Your task to perform on an android device: open chrome and create a bookmark for the current page Image 0: 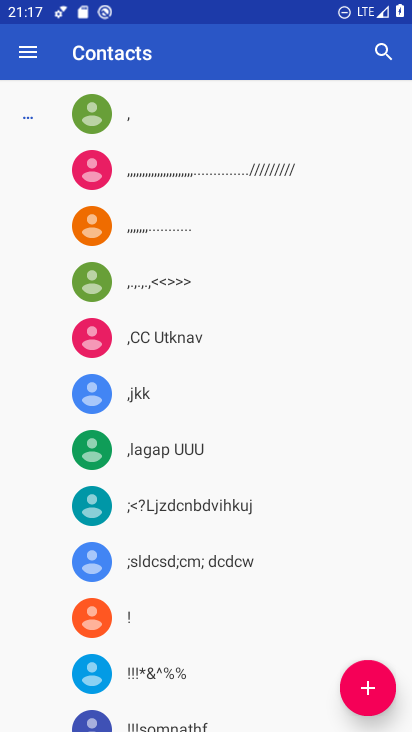
Step 0: drag from (234, 629) to (300, 278)
Your task to perform on an android device: open chrome and create a bookmark for the current page Image 1: 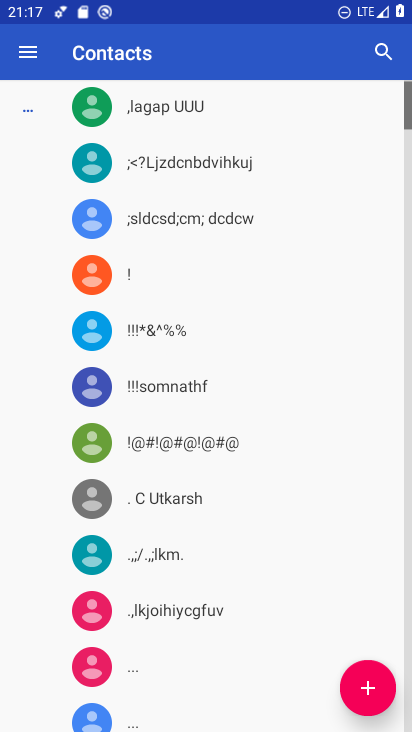
Step 1: press home button
Your task to perform on an android device: open chrome and create a bookmark for the current page Image 2: 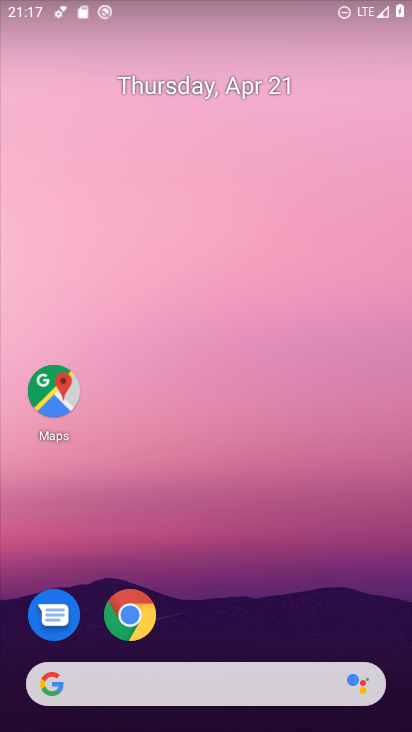
Step 2: drag from (197, 622) to (247, 62)
Your task to perform on an android device: open chrome and create a bookmark for the current page Image 3: 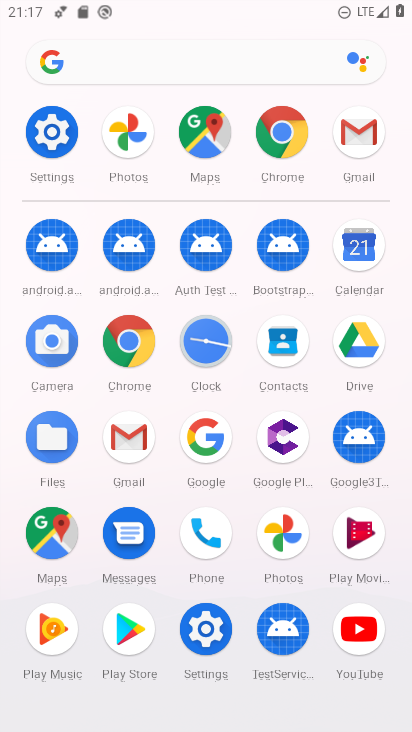
Step 3: click (124, 354)
Your task to perform on an android device: open chrome and create a bookmark for the current page Image 4: 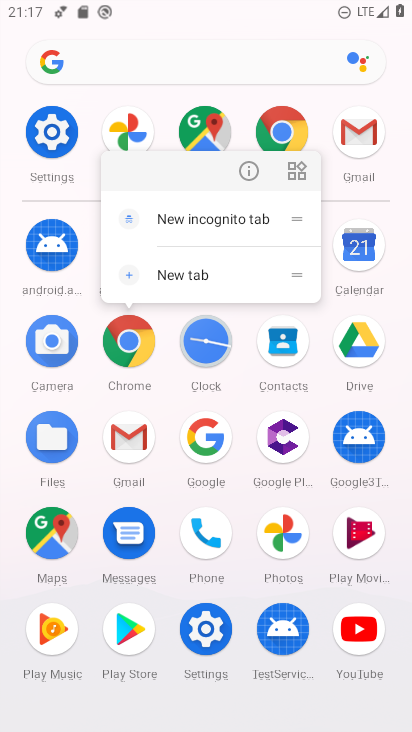
Step 4: click (257, 171)
Your task to perform on an android device: open chrome and create a bookmark for the current page Image 5: 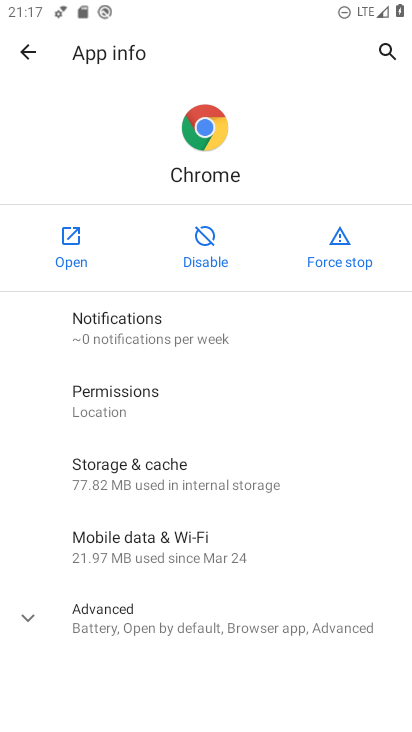
Step 5: click (68, 246)
Your task to perform on an android device: open chrome and create a bookmark for the current page Image 6: 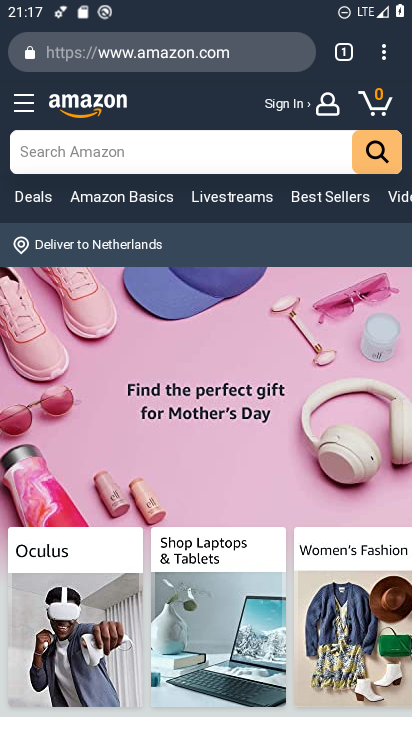
Step 6: drag from (391, 57) to (260, 270)
Your task to perform on an android device: open chrome and create a bookmark for the current page Image 7: 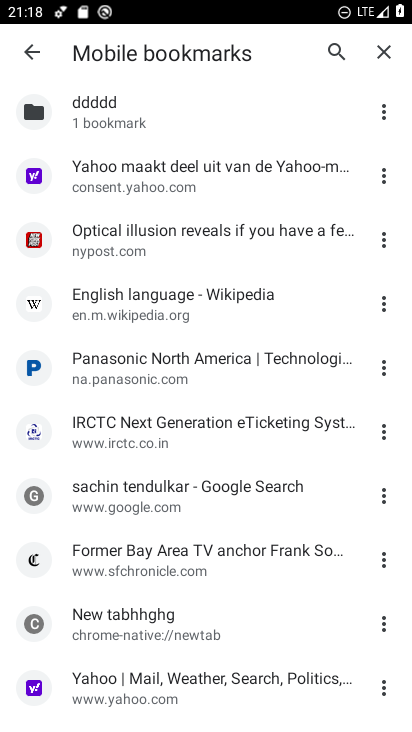
Step 7: drag from (216, 562) to (229, 191)
Your task to perform on an android device: open chrome and create a bookmark for the current page Image 8: 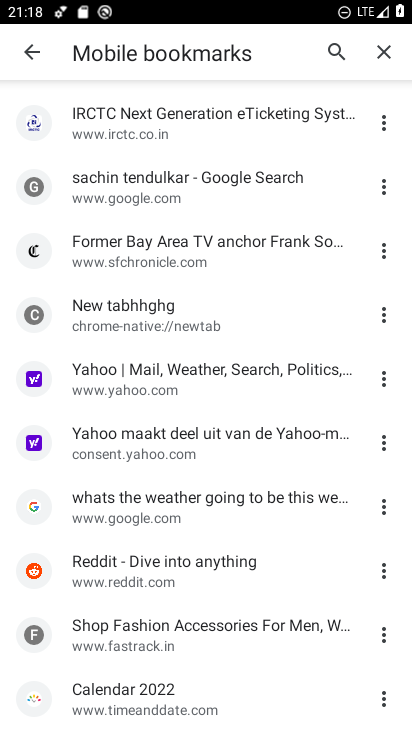
Step 8: click (27, 49)
Your task to perform on an android device: open chrome and create a bookmark for the current page Image 9: 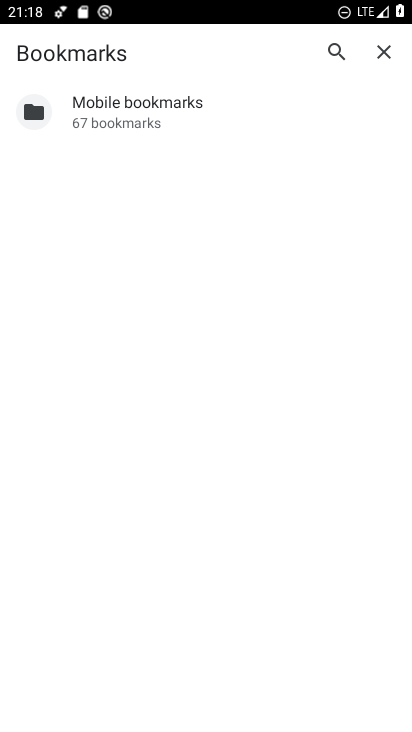
Step 9: click (386, 53)
Your task to perform on an android device: open chrome and create a bookmark for the current page Image 10: 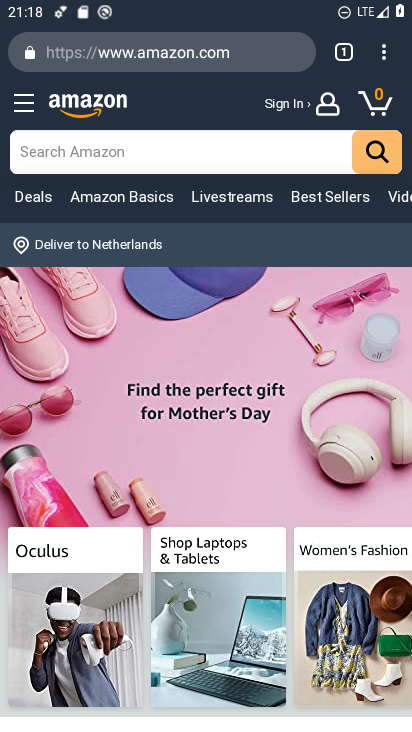
Step 10: drag from (382, 56) to (74, 351)
Your task to perform on an android device: open chrome and create a bookmark for the current page Image 11: 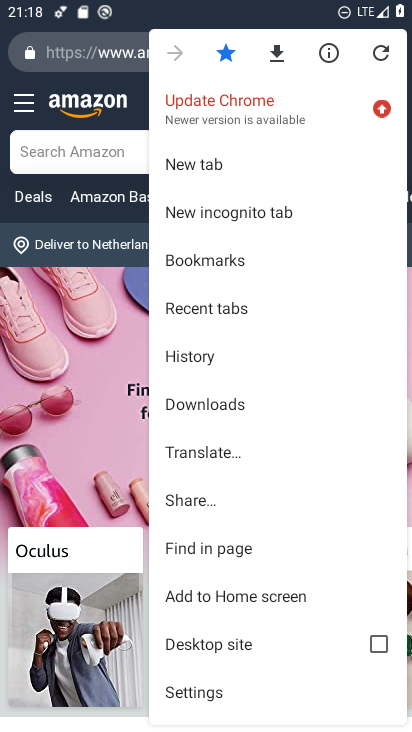
Step 11: click (74, 355)
Your task to perform on an android device: open chrome and create a bookmark for the current page Image 12: 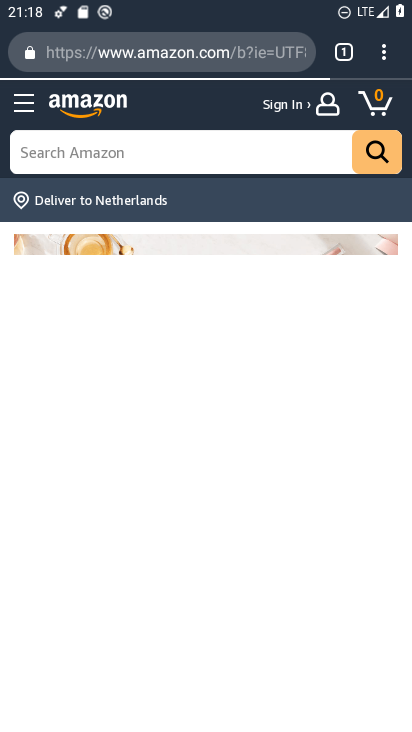
Step 12: click (74, 355)
Your task to perform on an android device: open chrome and create a bookmark for the current page Image 13: 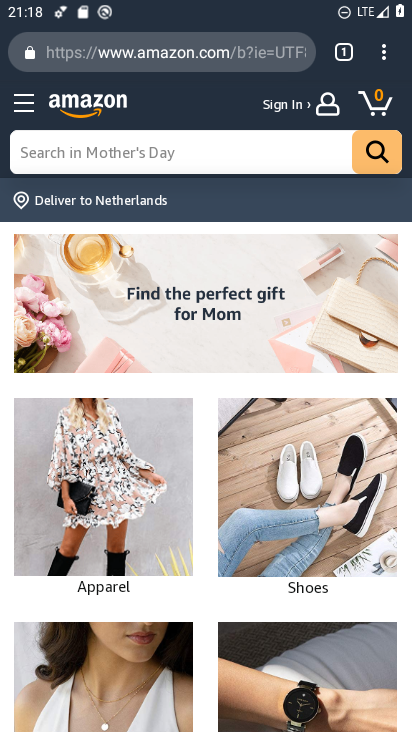
Step 13: click (380, 44)
Your task to perform on an android device: open chrome and create a bookmark for the current page Image 14: 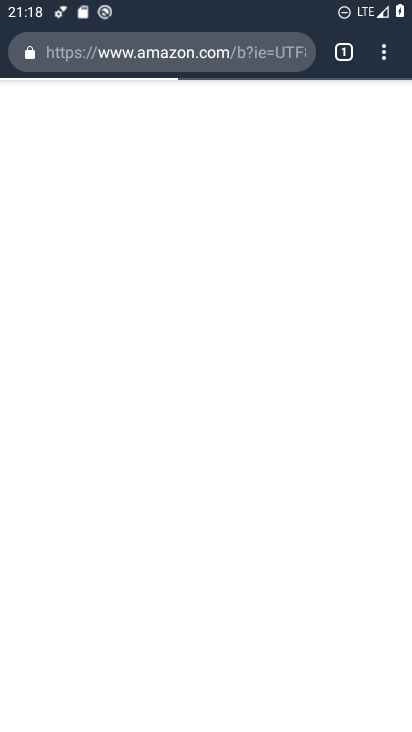
Step 14: task complete